Your task to perform on an android device: change the clock style Image 0: 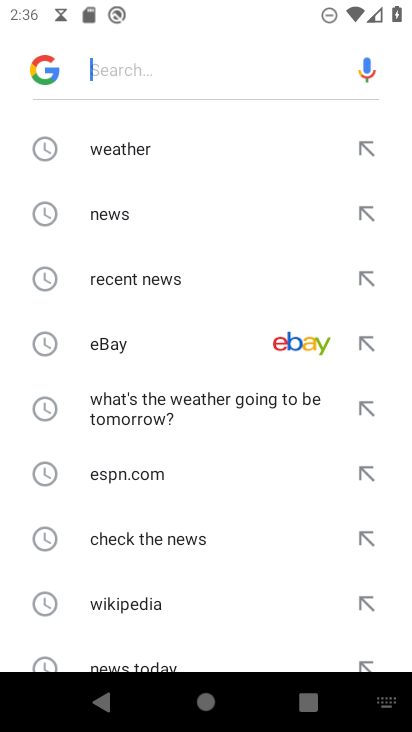
Step 0: press home button
Your task to perform on an android device: change the clock style Image 1: 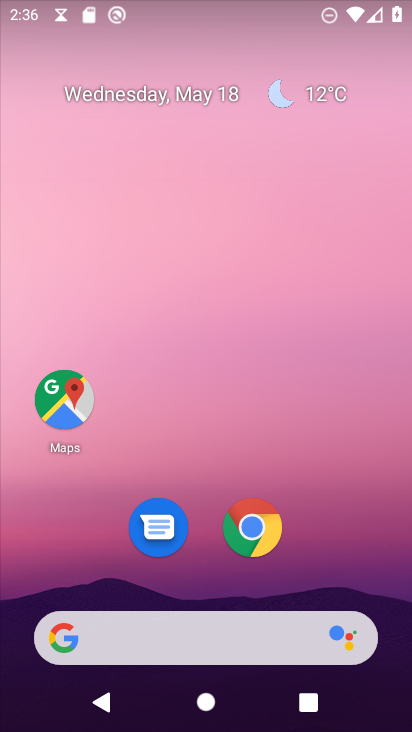
Step 1: drag from (326, 506) to (214, 24)
Your task to perform on an android device: change the clock style Image 2: 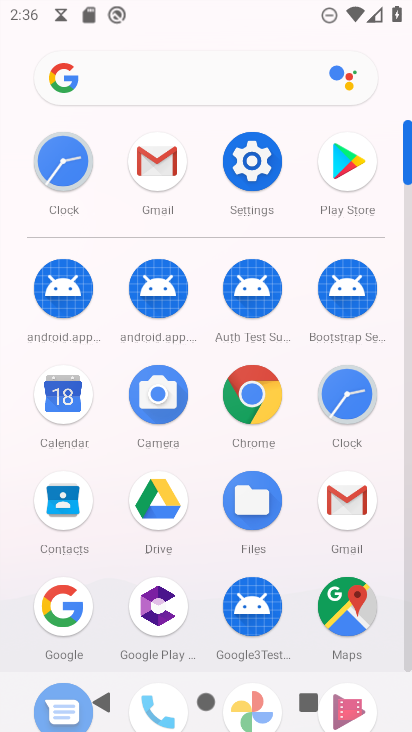
Step 2: click (357, 398)
Your task to perform on an android device: change the clock style Image 3: 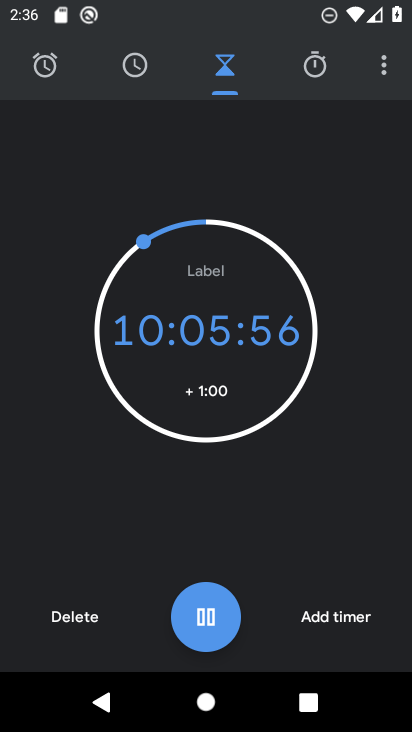
Step 3: click (384, 67)
Your task to perform on an android device: change the clock style Image 4: 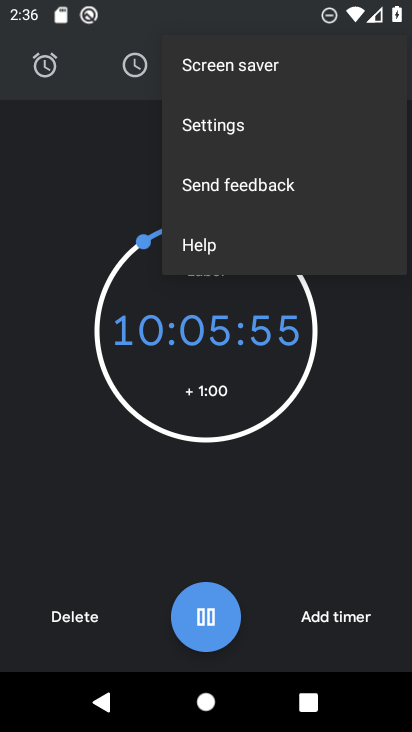
Step 4: click (217, 127)
Your task to perform on an android device: change the clock style Image 5: 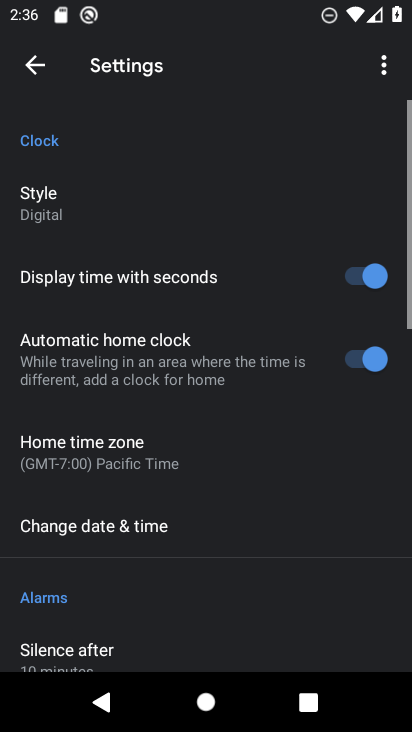
Step 5: click (67, 203)
Your task to perform on an android device: change the clock style Image 6: 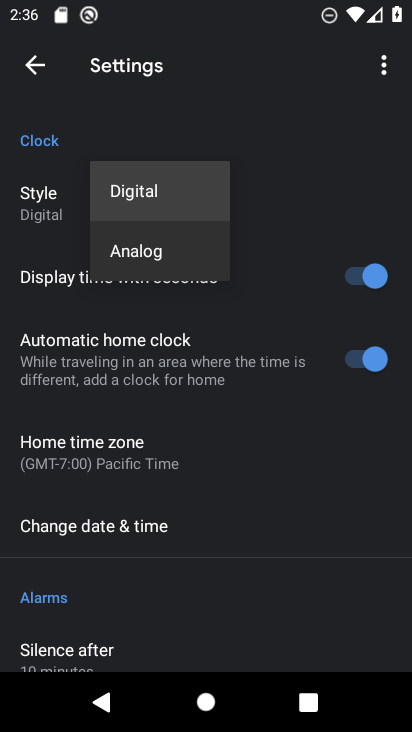
Step 6: click (139, 244)
Your task to perform on an android device: change the clock style Image 7: 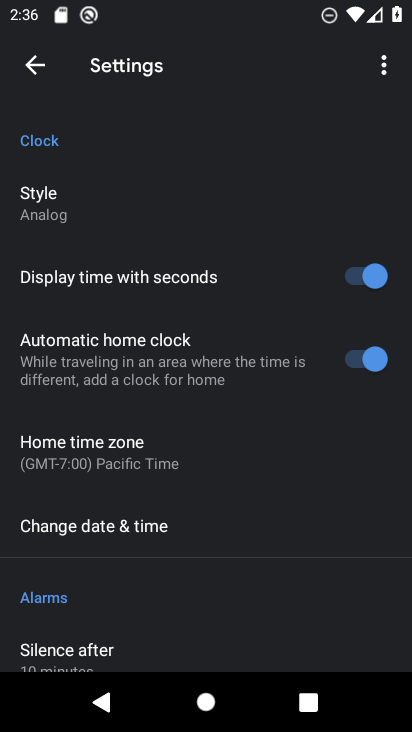
Step 7: task complete